Your task to perform on an android device: Add usb-c to the cart on amazon.com Image 0: 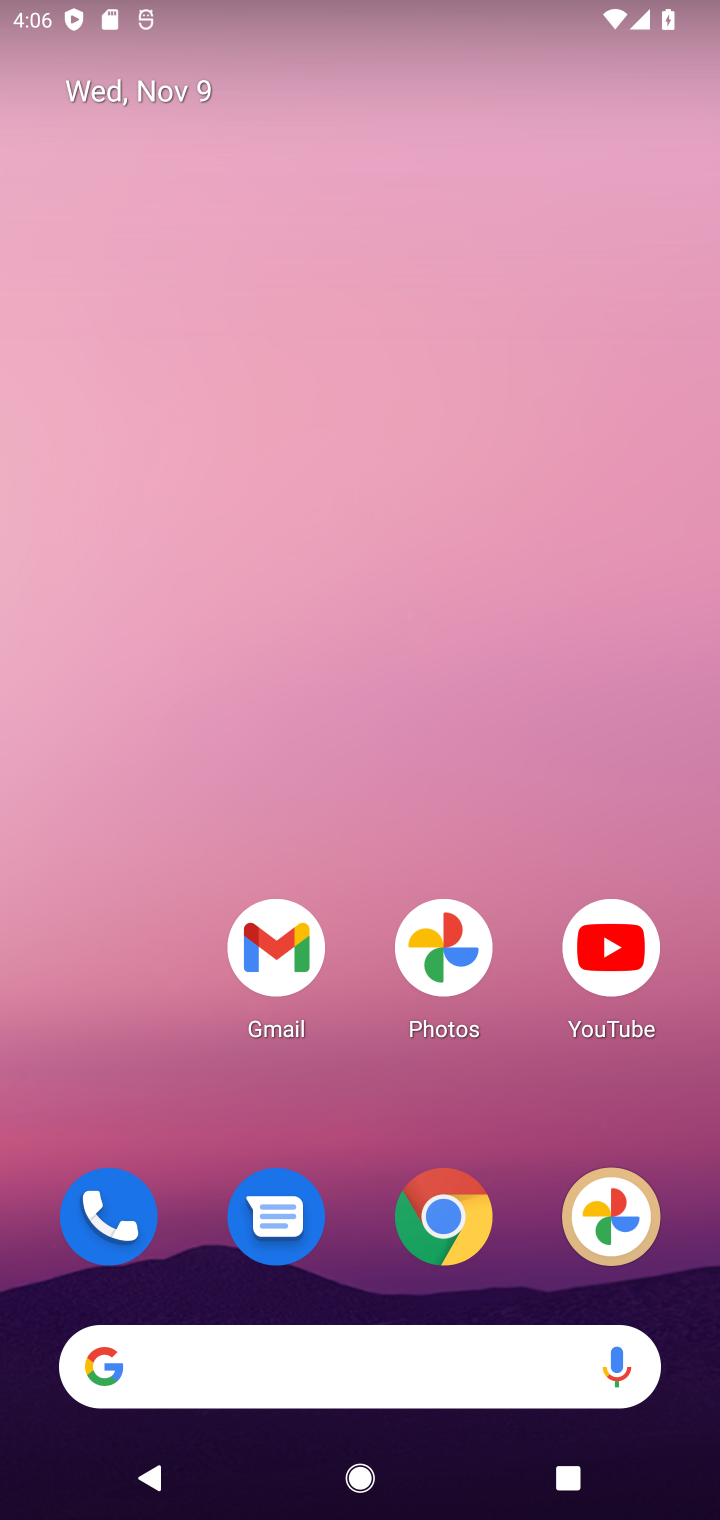
Step 0: drag from (354, 1072) to (305, 64)
Your task to perform on an android device: Add usb-c to the cart on amazon.com Image 1: 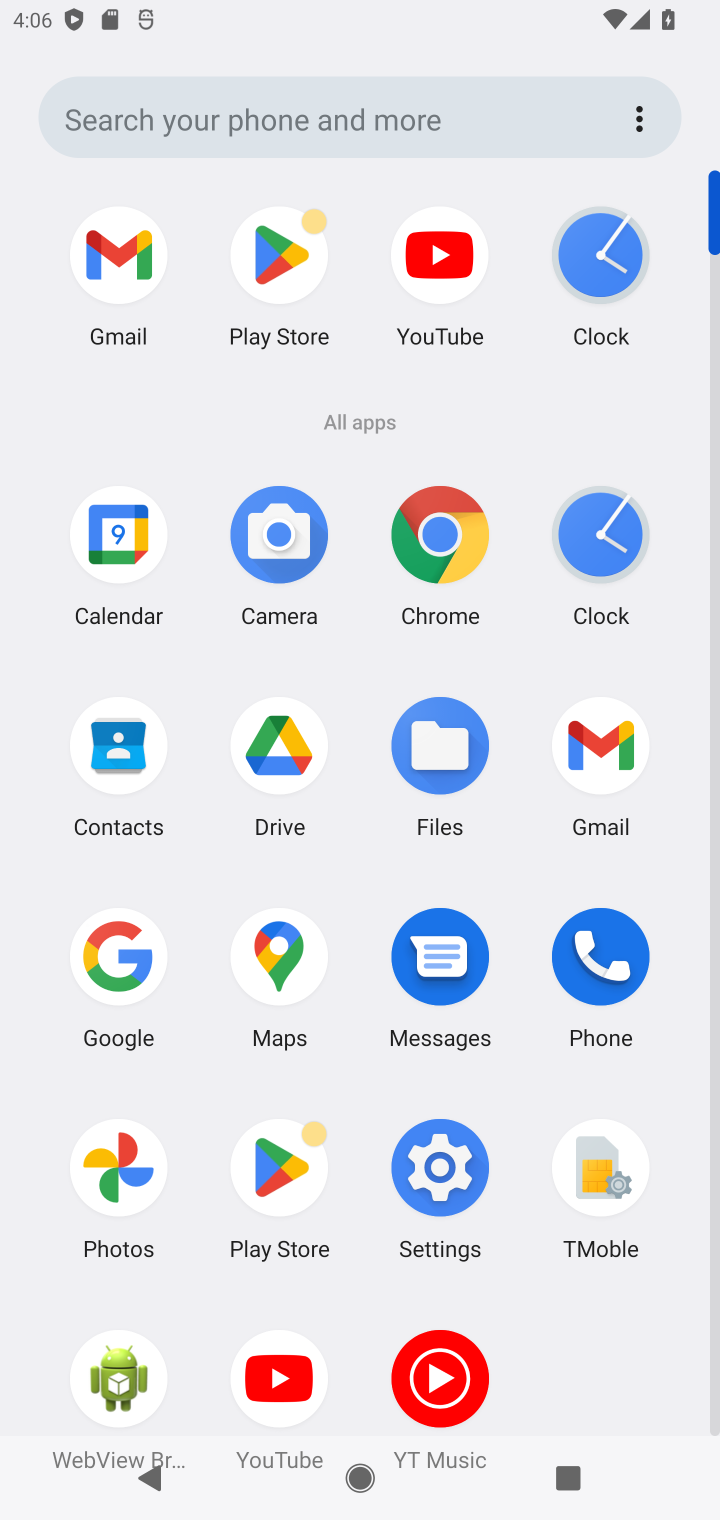
Step 1: click (437, 536)
Your task to perform on an android device: Add usb-c to the cart on amazon.com Image 2: 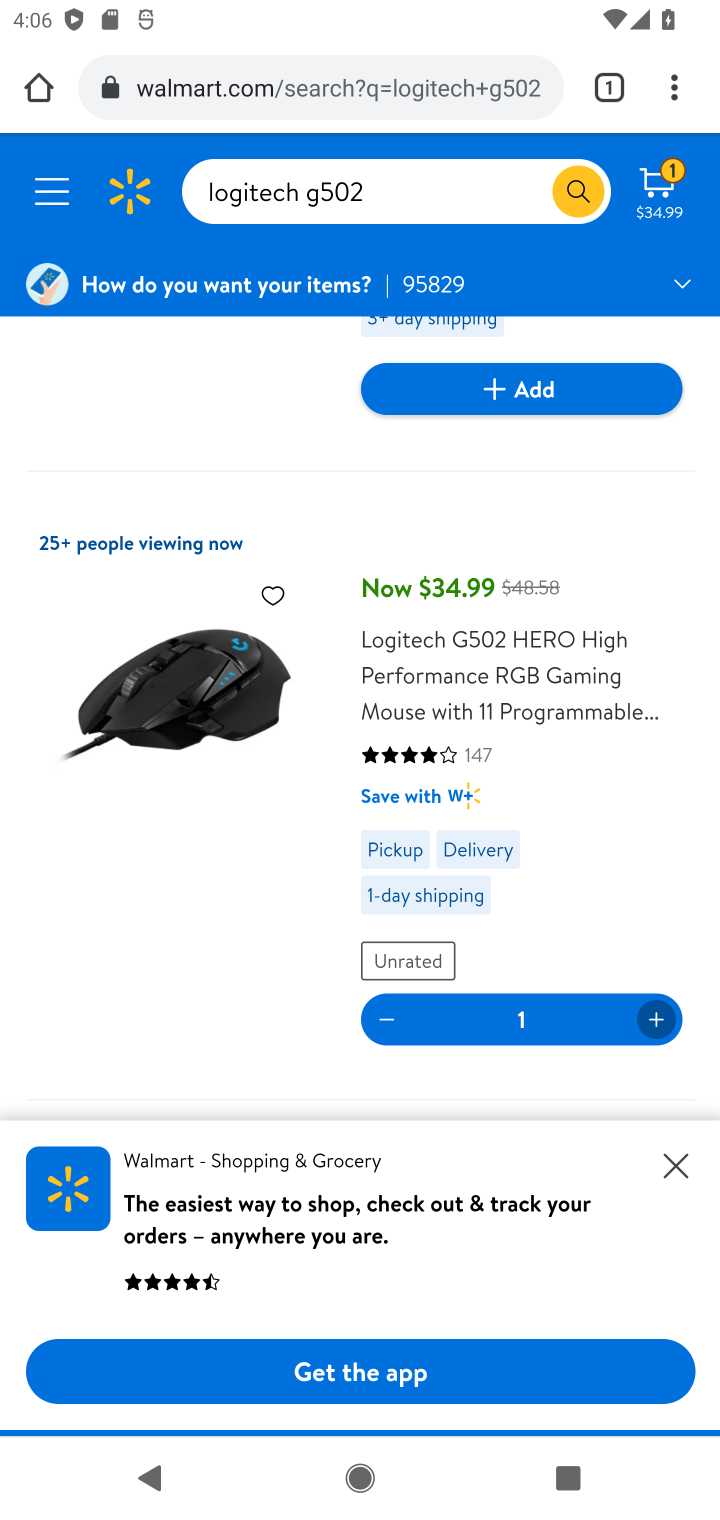
Step 2: click (434, 82)
Your task to perform on an android device: Add usb-c to the cart on amazon.com Image 3: 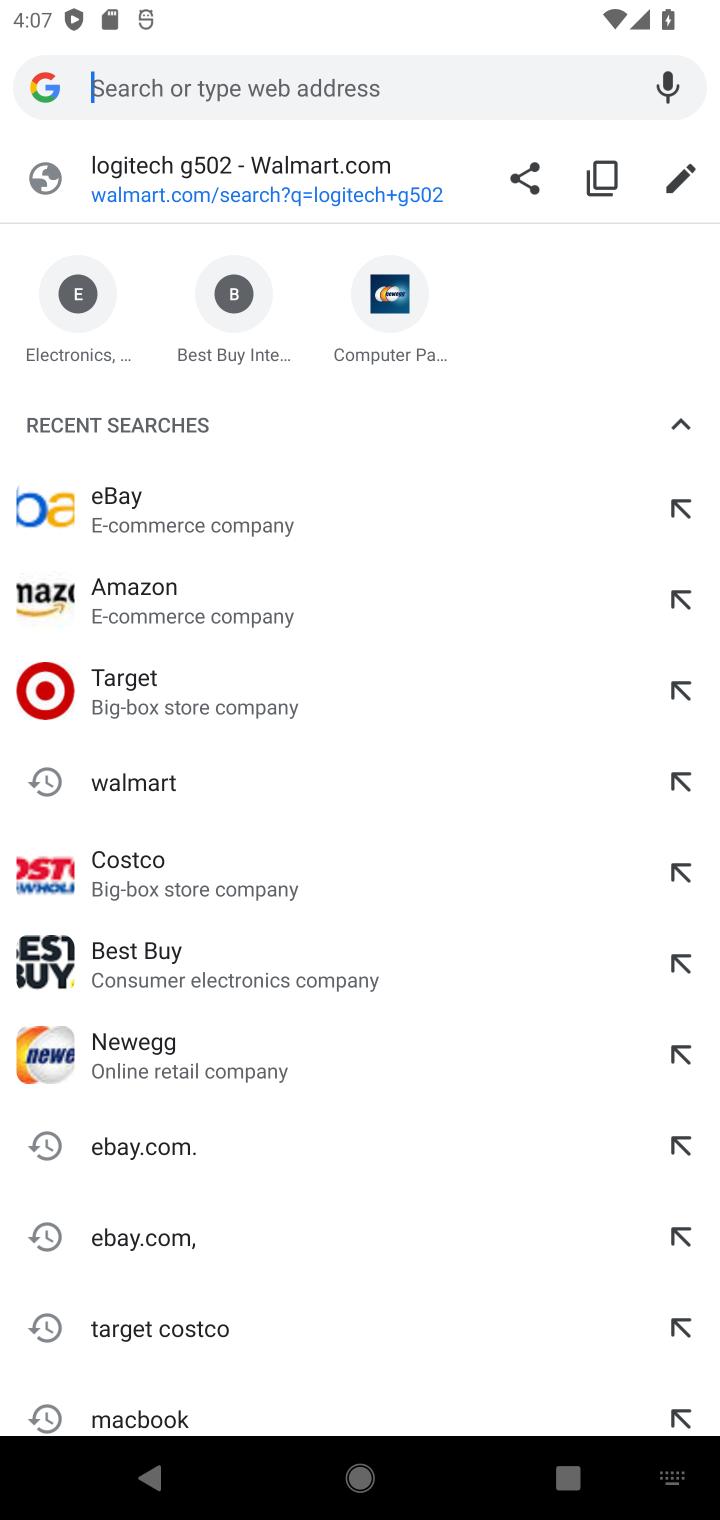
Step 3: press enter
Your task to perform on an android device: Add usb-c to the cart on amazon.com Image 4: 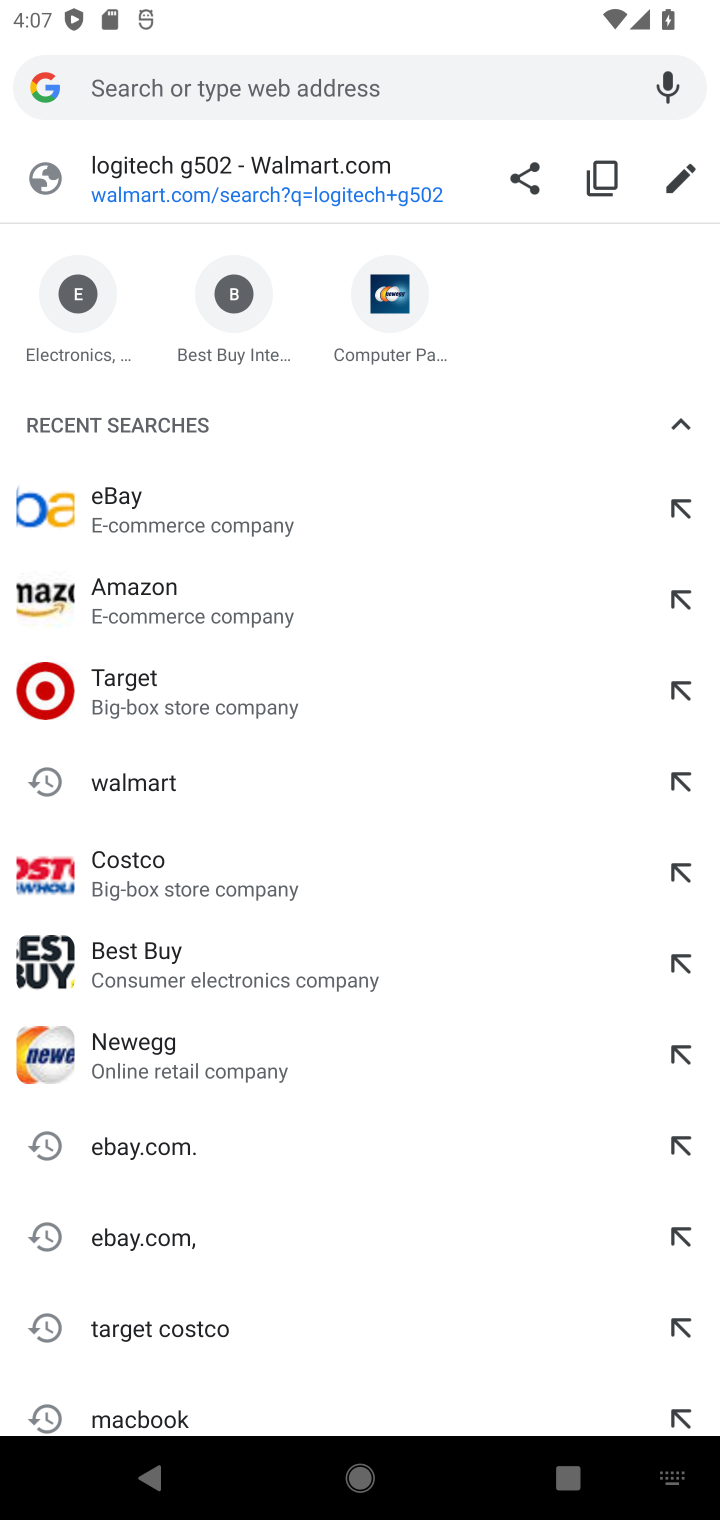
Step 4: type "amazon.com"
Your task to perform on an android device: Add usb-c to the cart on amazon.com Image 5: 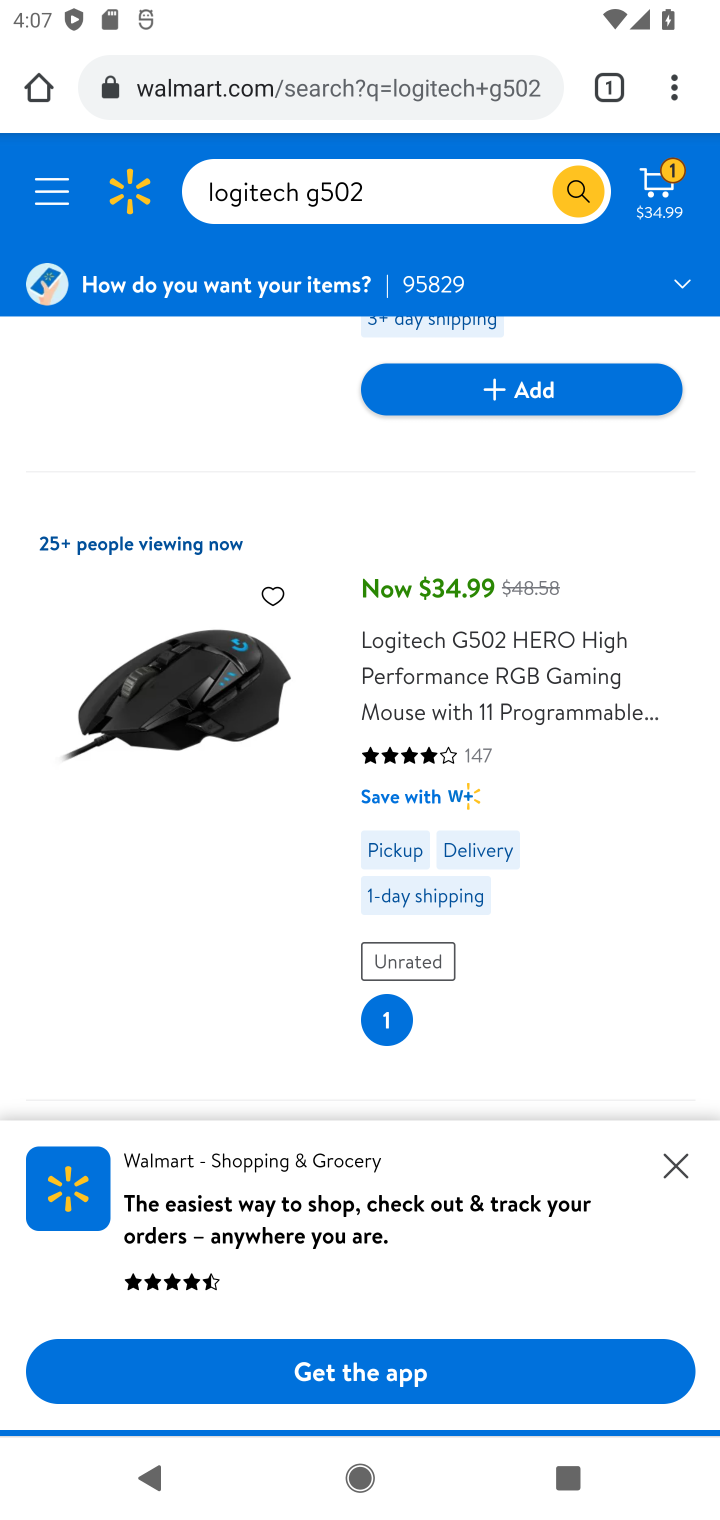
Step 5: click (384, 187)
Your task to perform on an android device: Add usb-c to the cart on amazon.com Image 6: 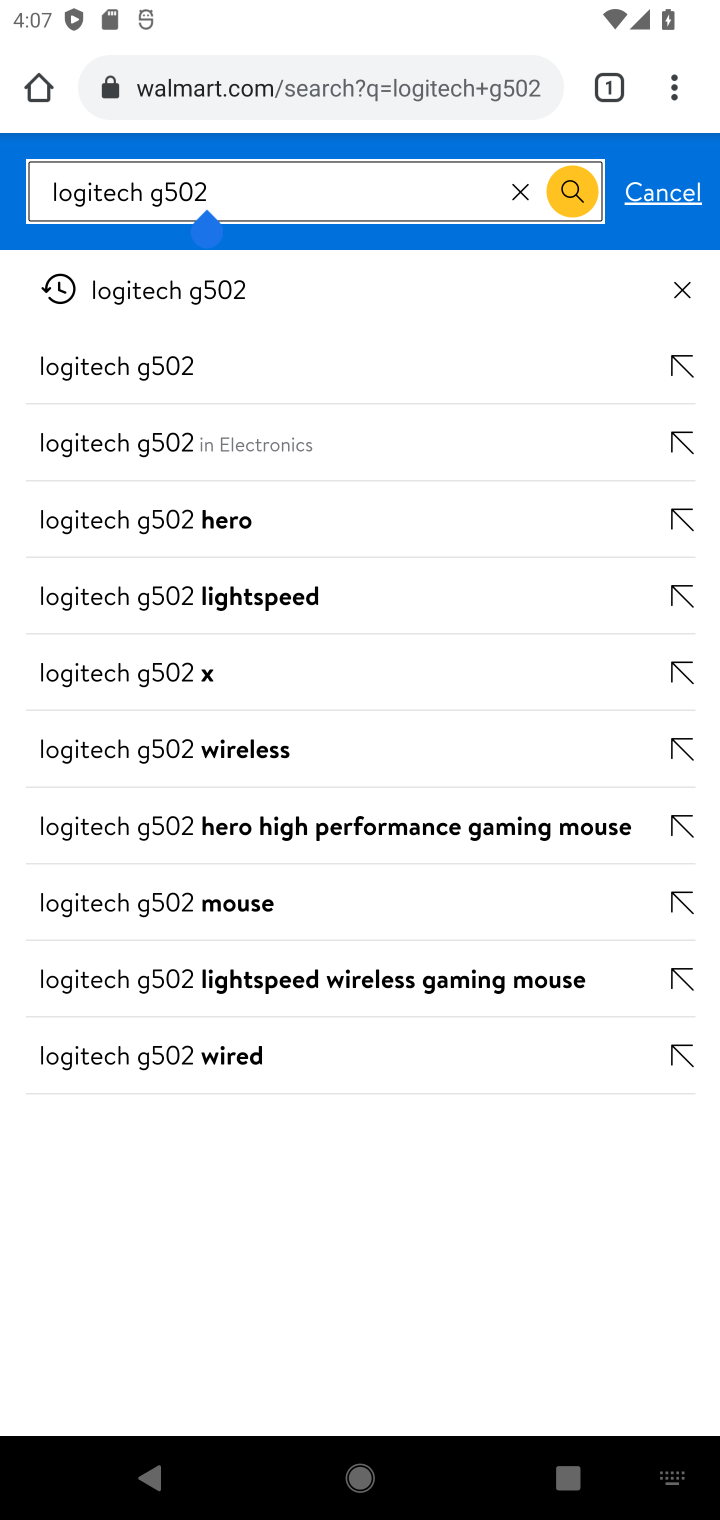
Step 6: click (521, 184)
Your task to perform on an android device: Add usb-c to the cart on amazon.com Image 7: 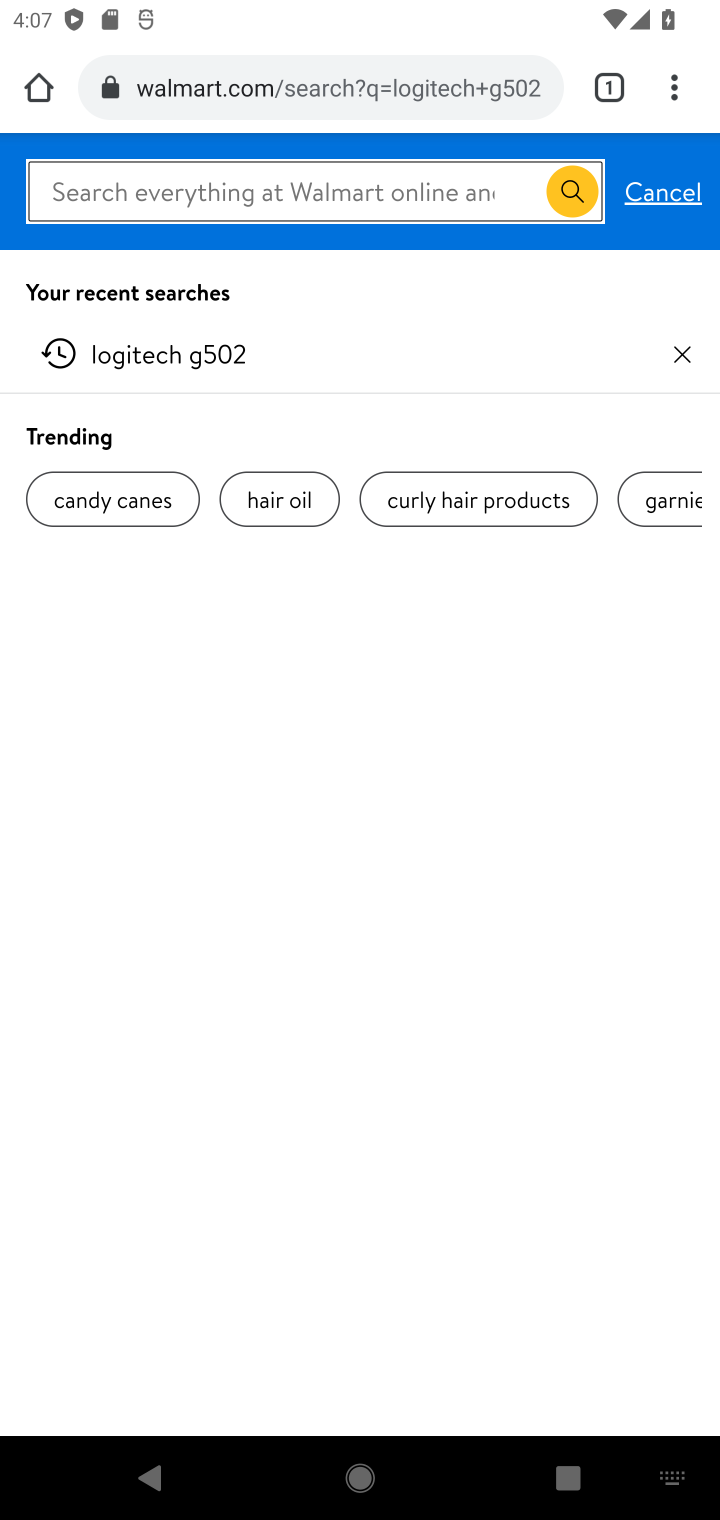
Step 7: press enter
Your task to perform on an android device: Add usb-c to the cart on amazon.com Image 8: 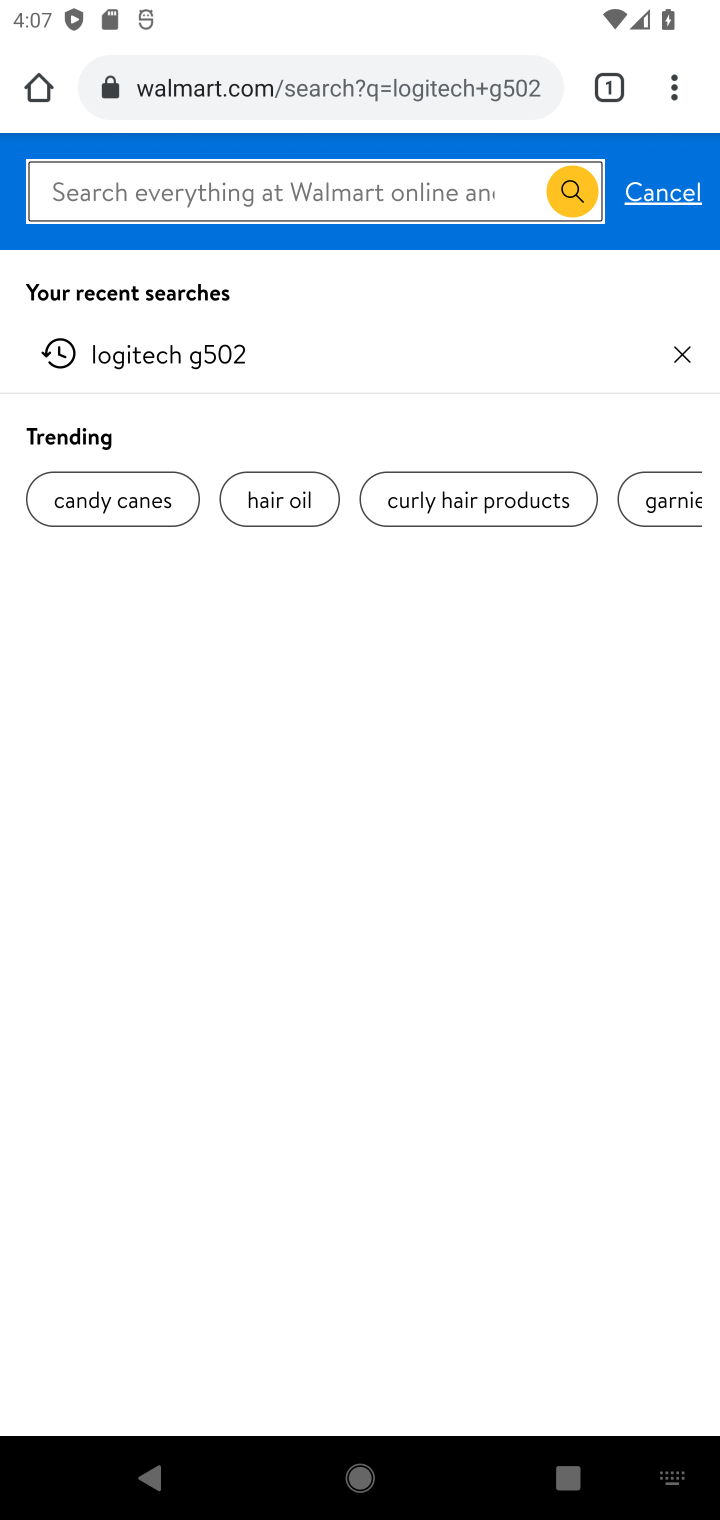
Step 8: type "usb-c"
Your task to perform on an android device: Add usb-c to the cart on amazon.com Image 9: 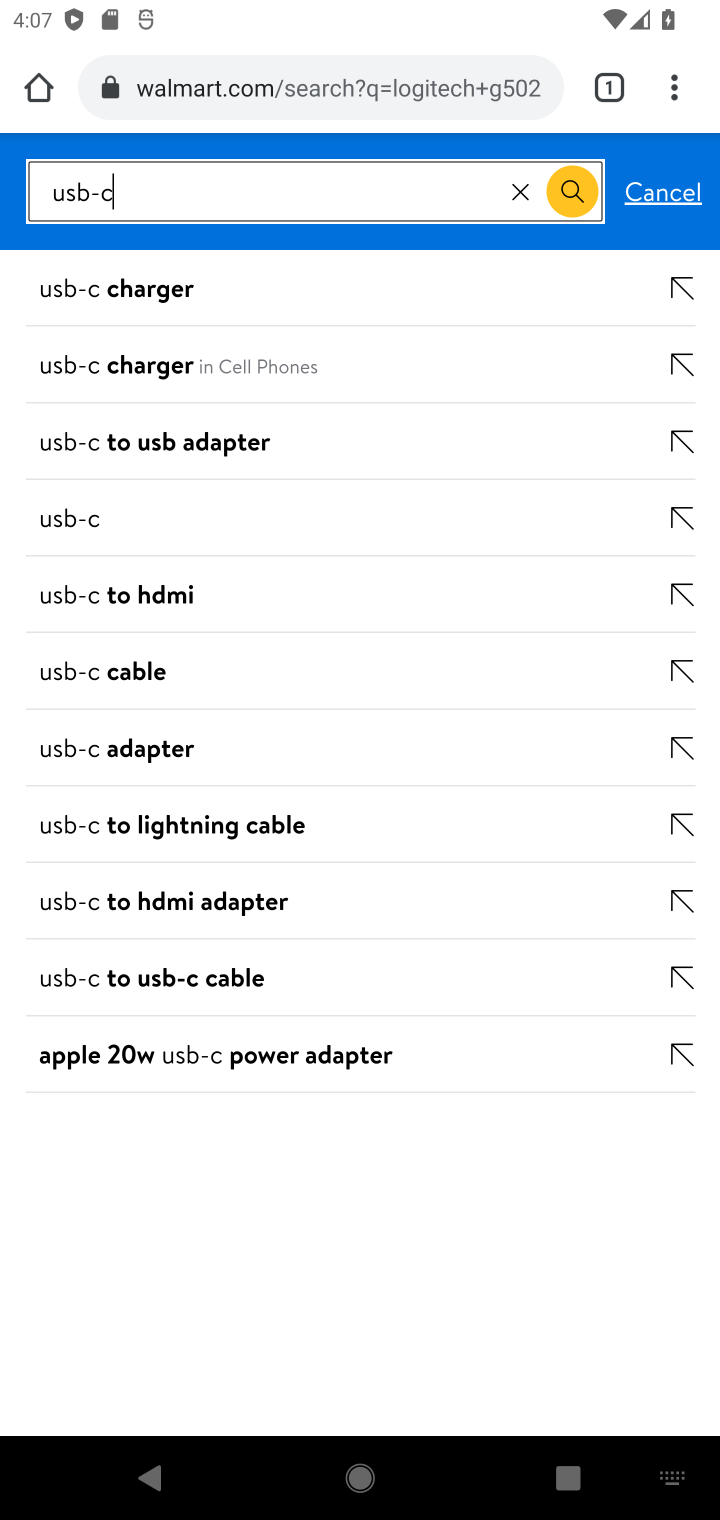
Step 9: press enter
Your task to perform on an android device: Add usb-c to the cart on amazon.com Image 10: 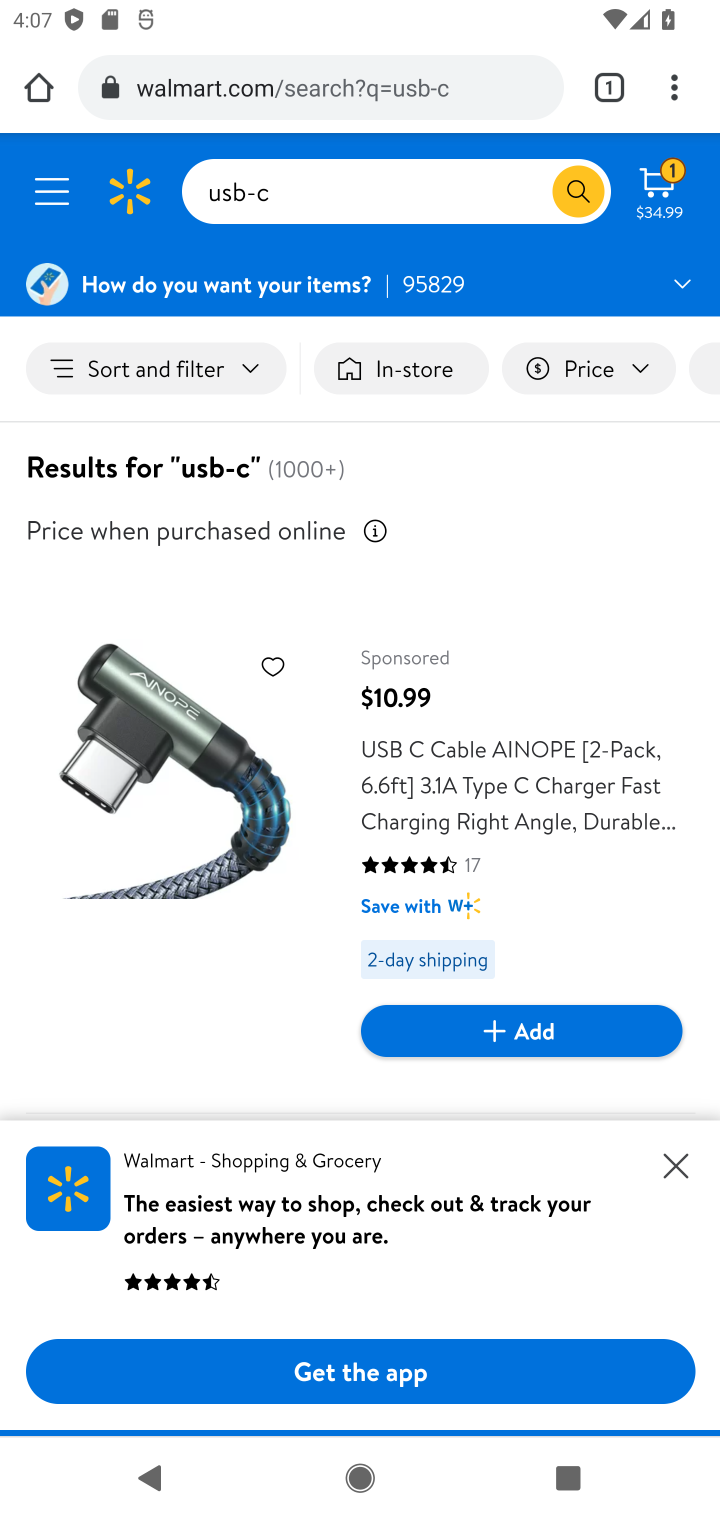
Step 10: drag from (479, 927) to (482, 281)
Your task to perform on an android device: Add usb-c to the cart on amazon.com Image 11: 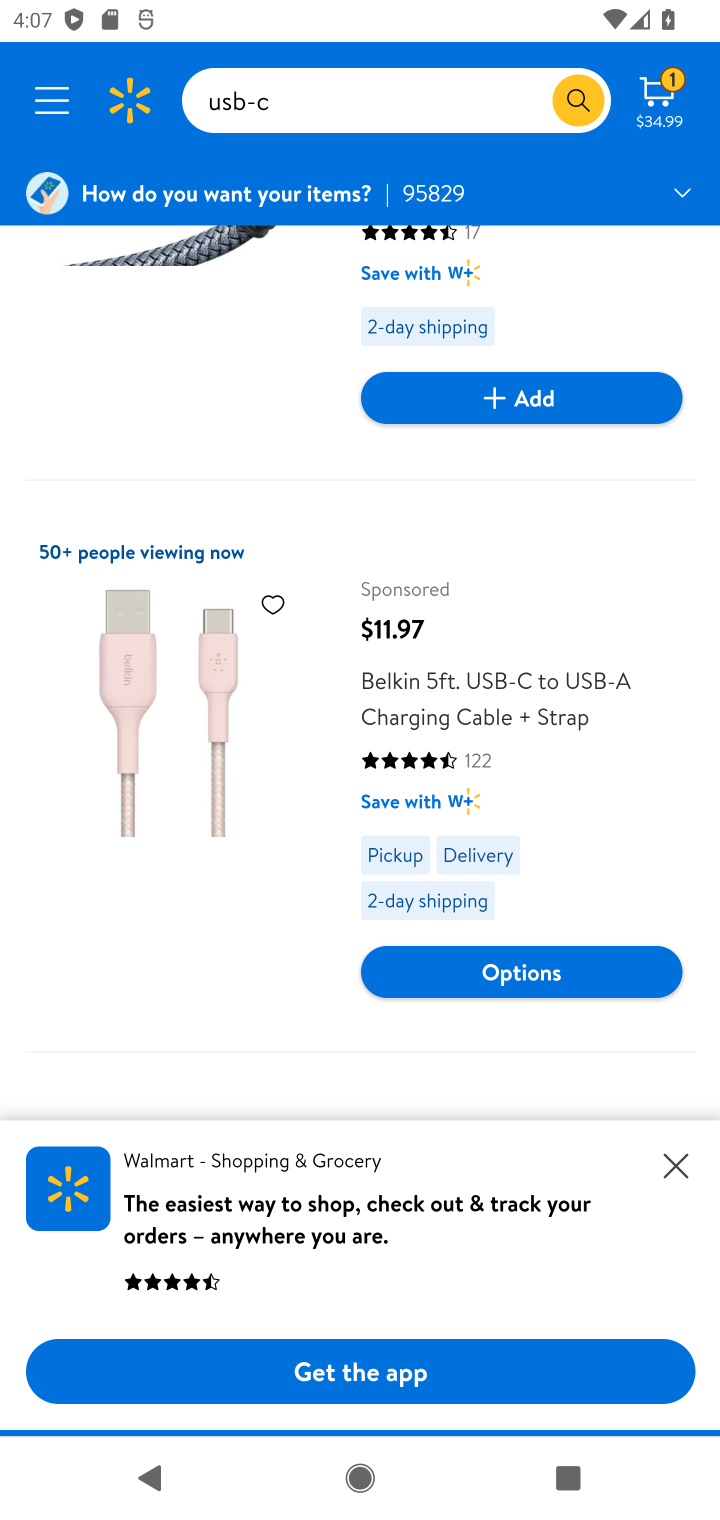
Step 11: drag from (322, 1018) to (356, 355)
Your task to perform on an android device: Add usb-c to the cart on amazon.com Image 12: 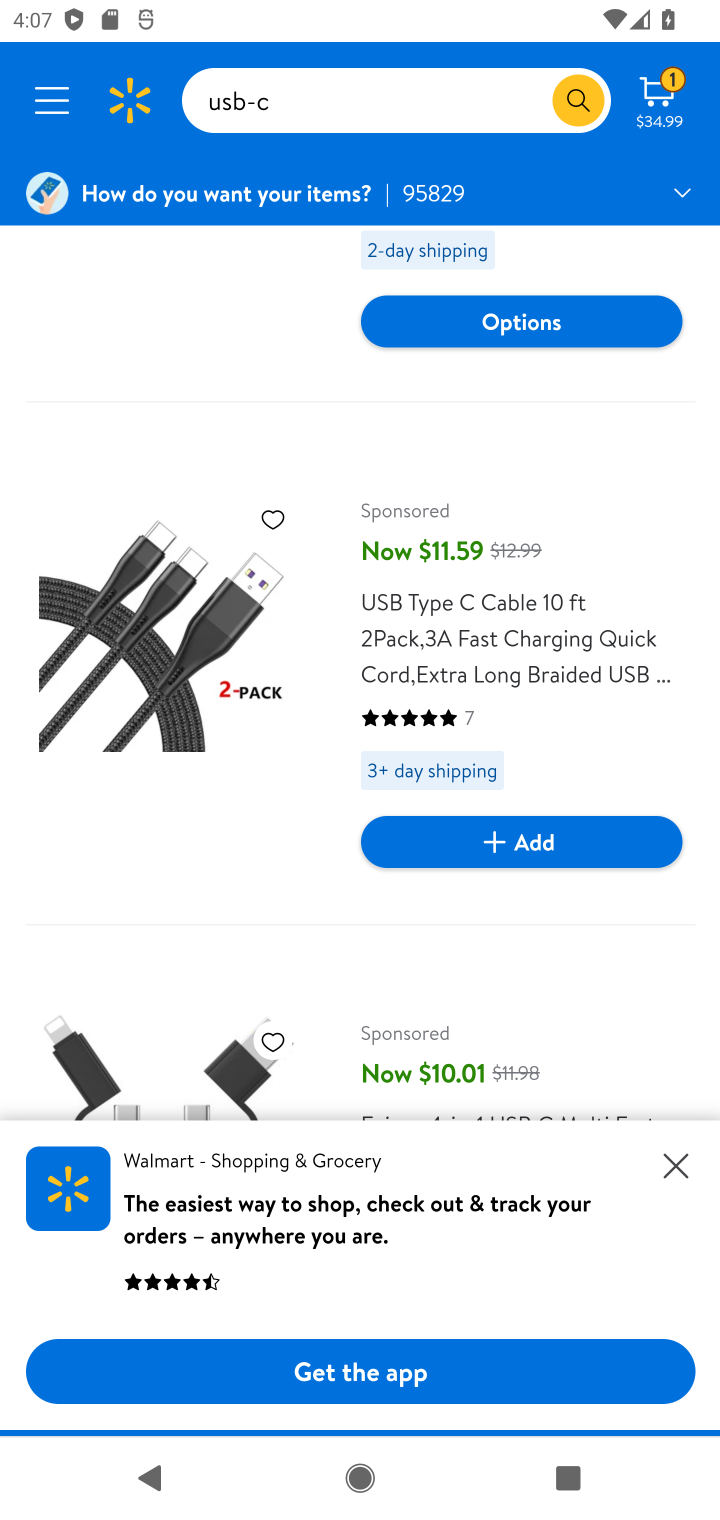
Step 12: drag from (315, 1083) to (321, 484)
Your task to perform on an android device: Add usb-c to the cart on amazon.com Image 13: 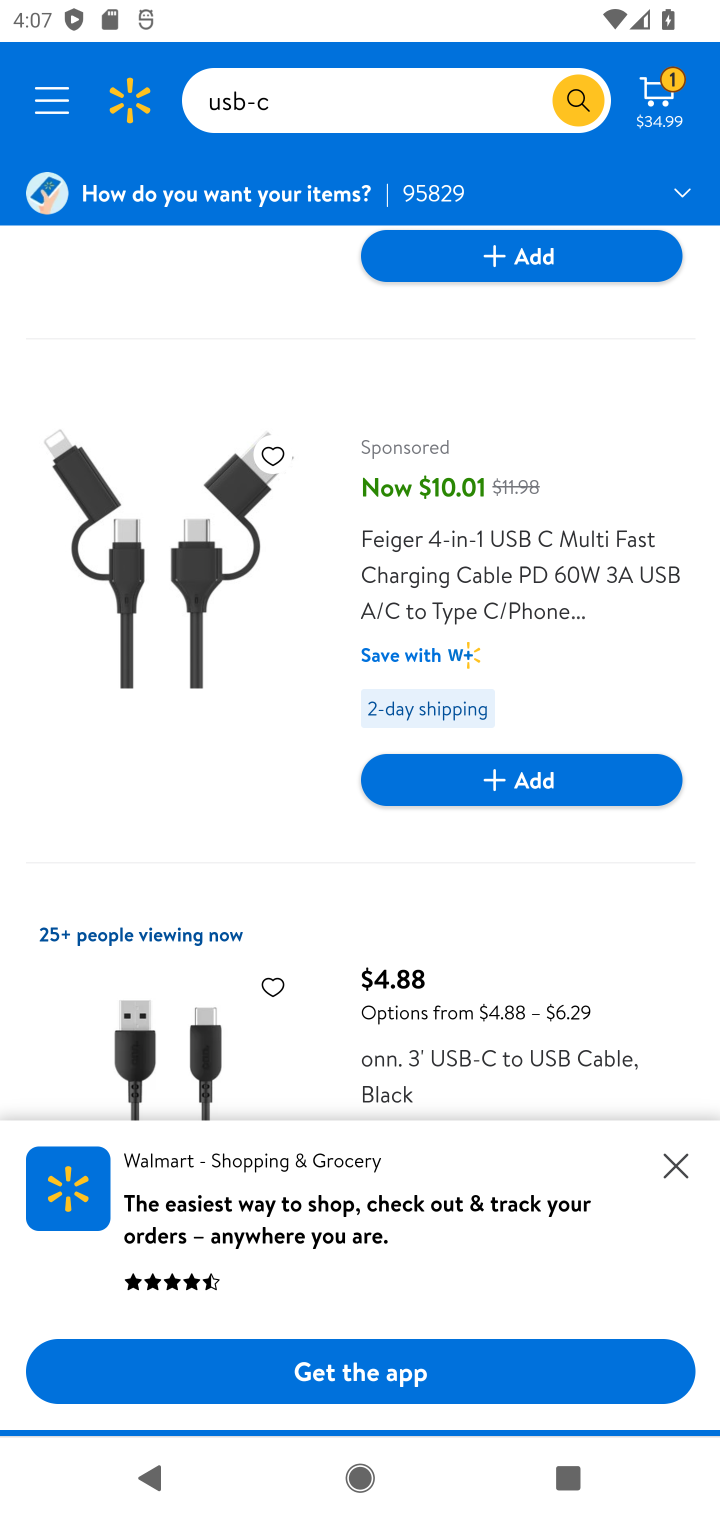
Step 13: drag from (296, 1063) to (248, 652)
Your task to perform on an android device: Add usb-c to the cart on amazon.com Image 14: 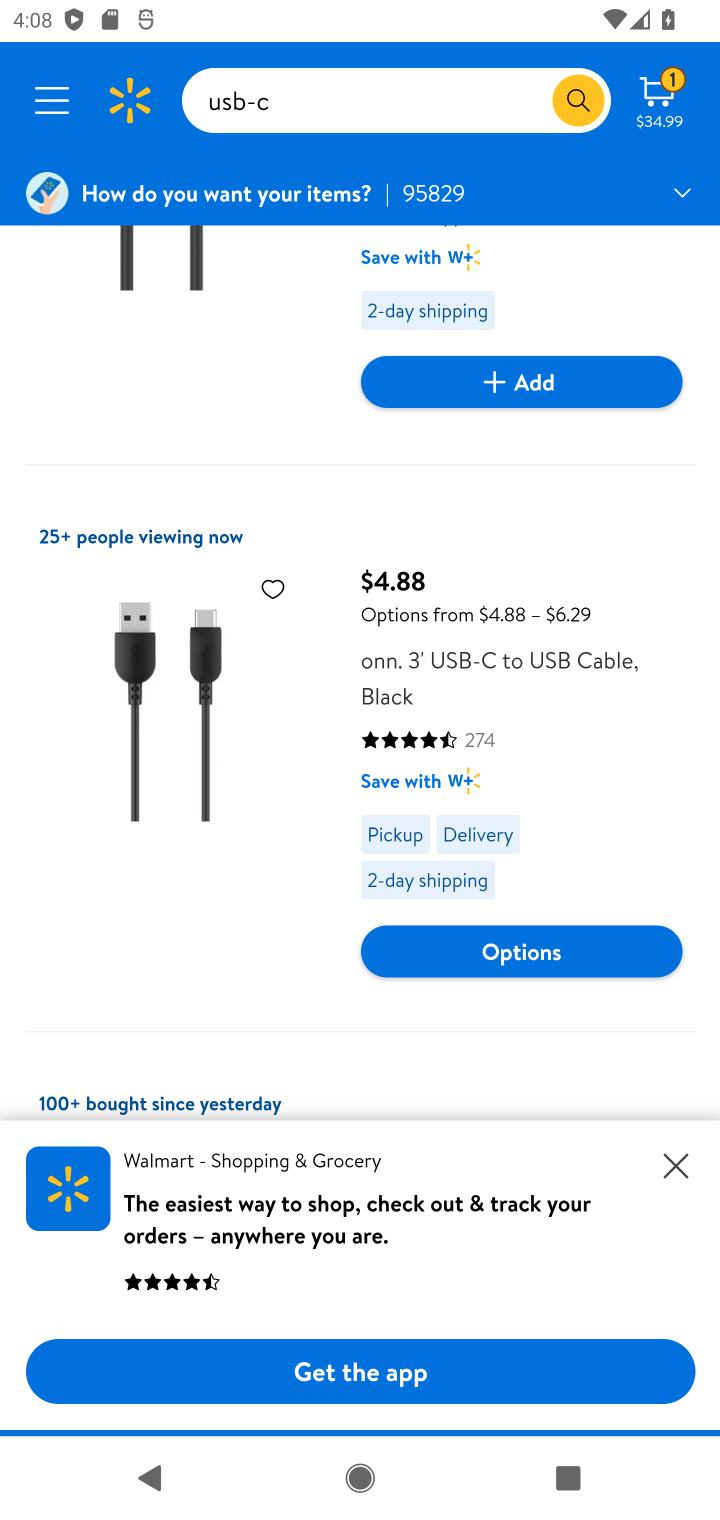
Step 14: drag from (375, 580) to (289, 567)
Your task to perform on an android device: Add usb-c to the cart on amazon.com Image 15: 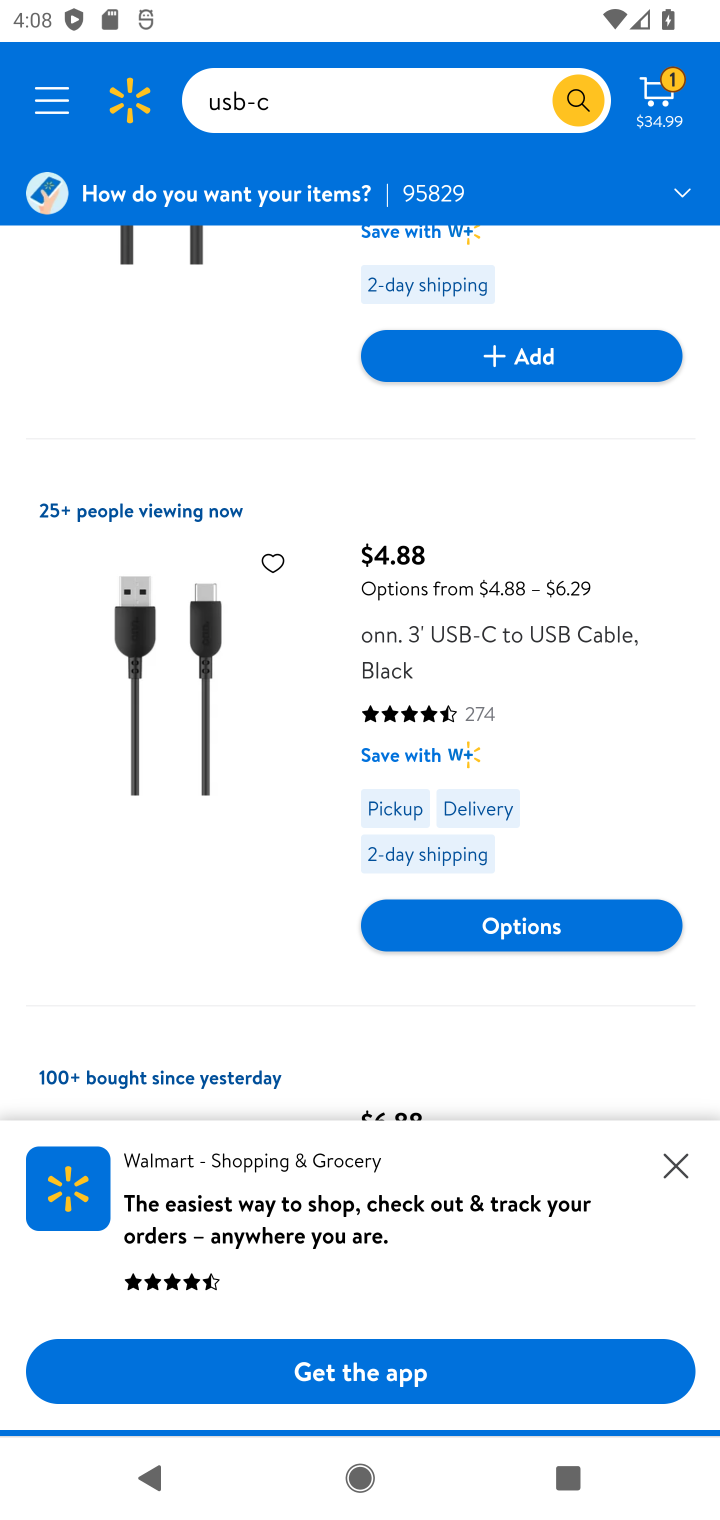
Step 15: click (561, 914)
Your task to perform on an android device: Add usb-c to the cart on amazon.com Image 16: 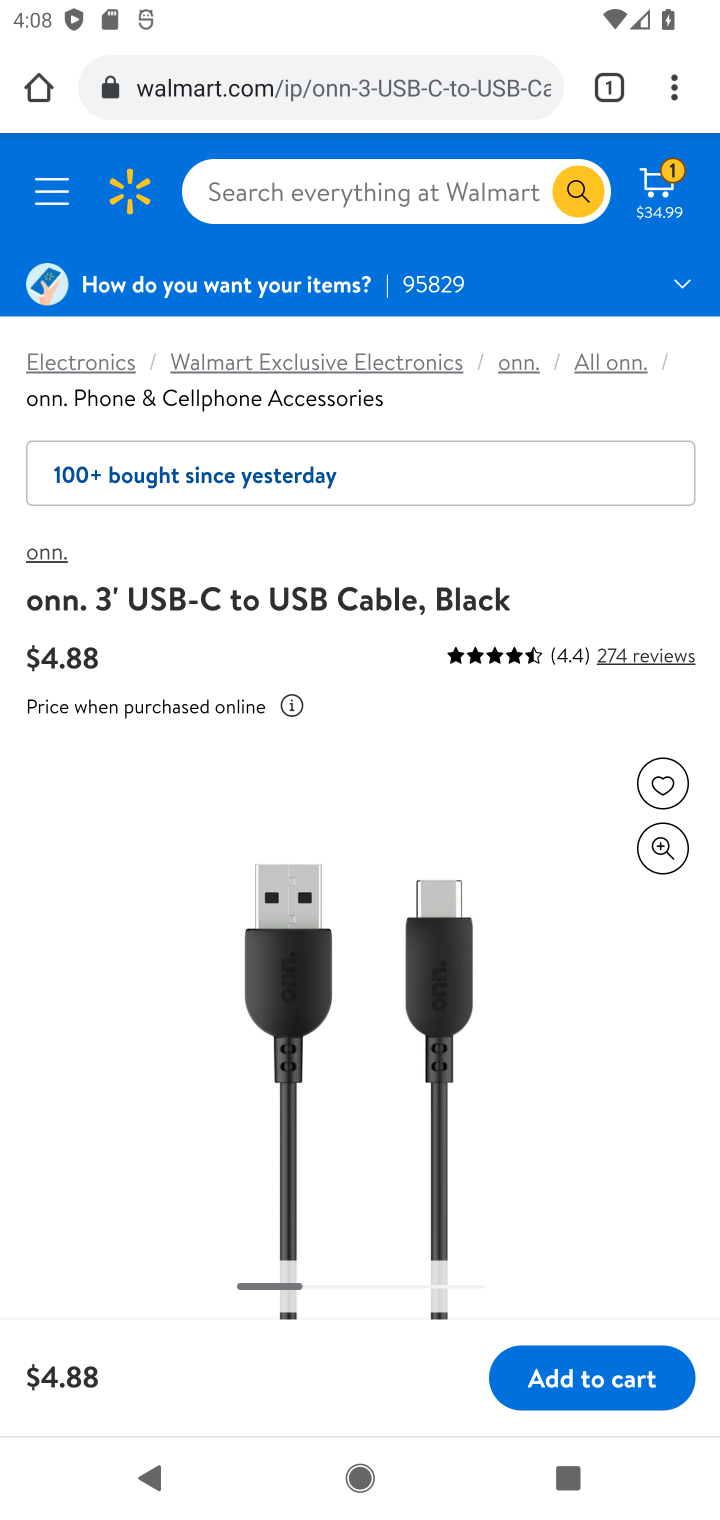
Step 16: click (646, 1393)
Your task to perform on an android device: Add usb-c to the cart on amazon.com Image 17: 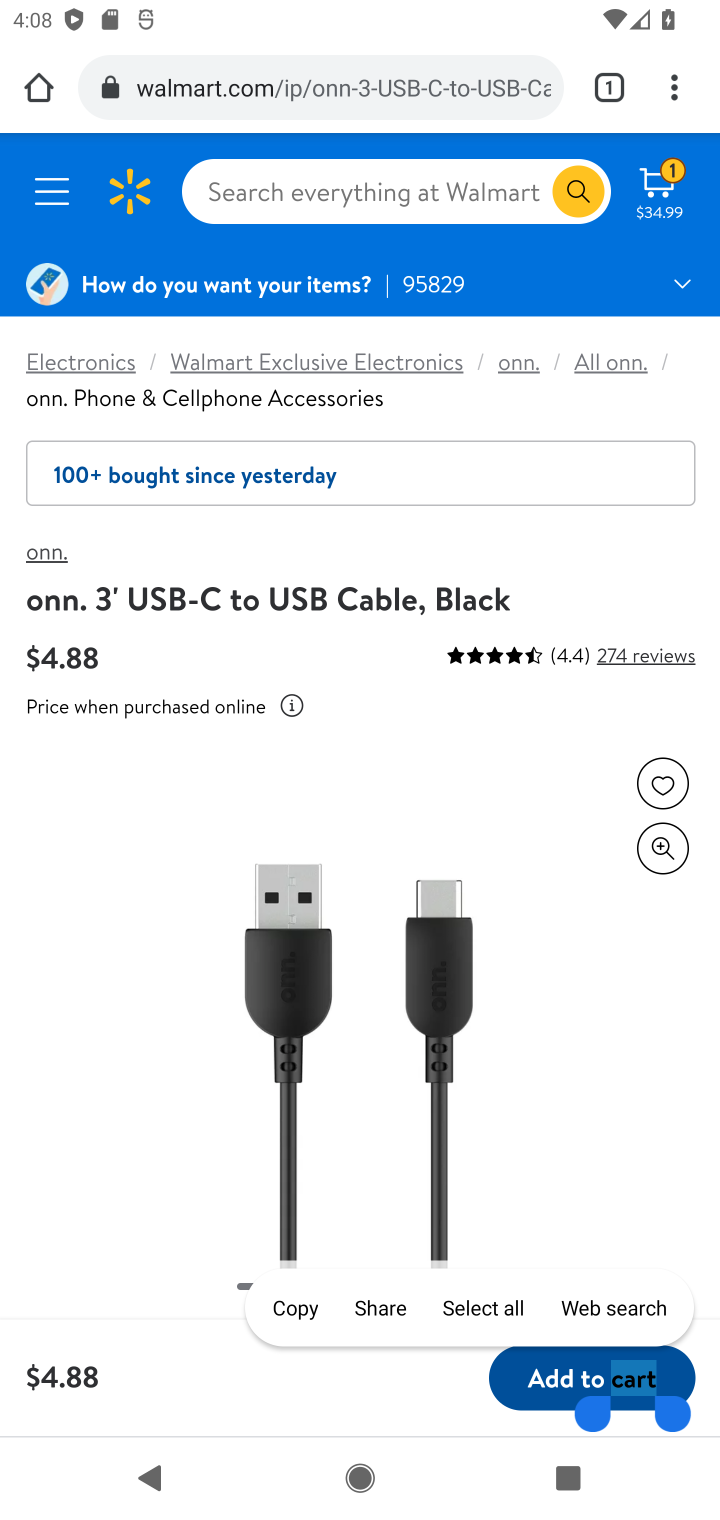
Step 17: click (558, 1371)
Your task to perform on an android device: Add usb-c to the cart on amazon.com Image 18: 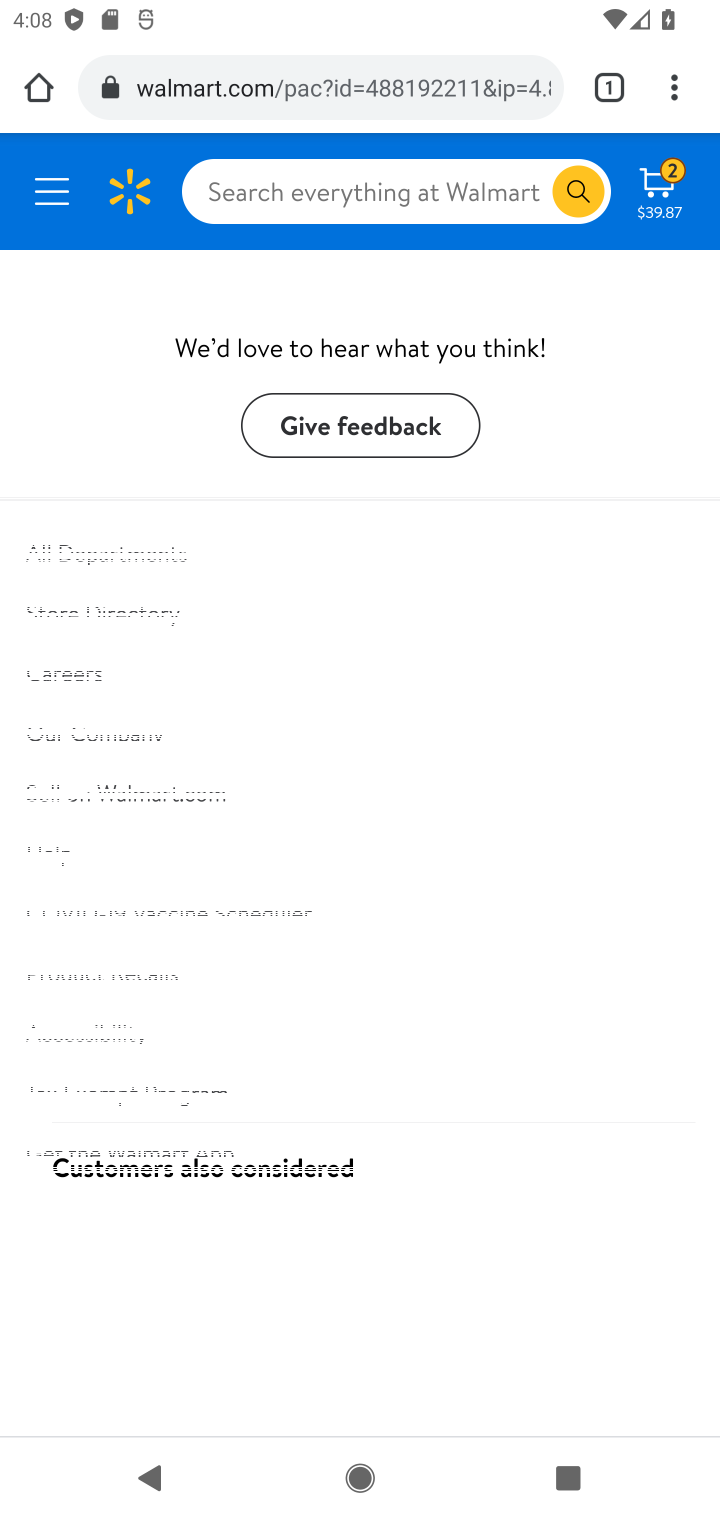
Step 18: task complete